Your task to perform on an android device: Set the phone to "Do not disturb". Image 0: 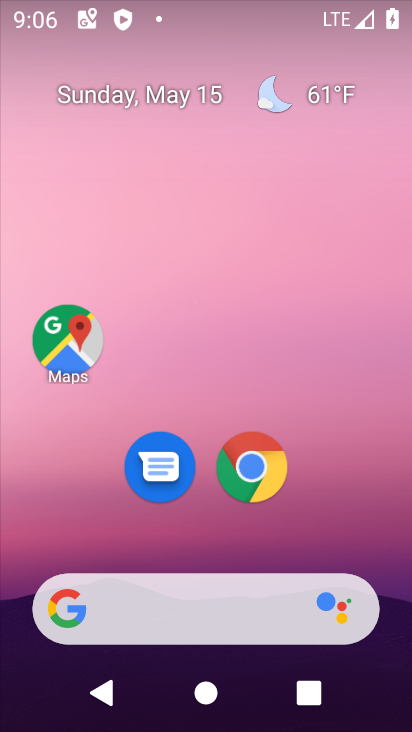
Step 0: drag from (194, 7) to (189, 538)
Your task to perform on an android device: Set the phone to "Do not disturb". Image 1: 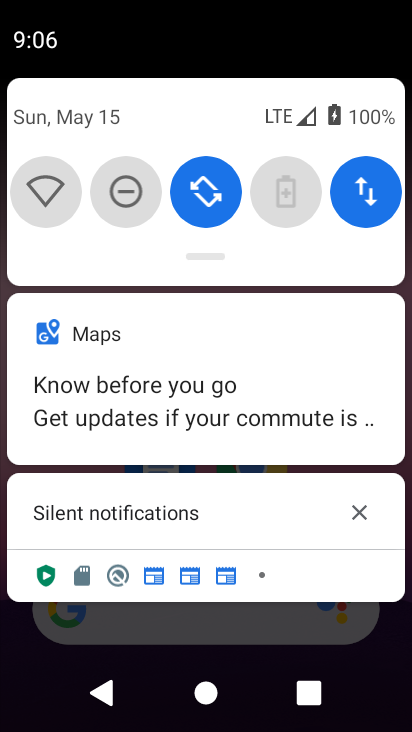
Step 1: click (136, 211)
Your task to perform on an android device: Set the phone to "Do not disturb". Image 2: 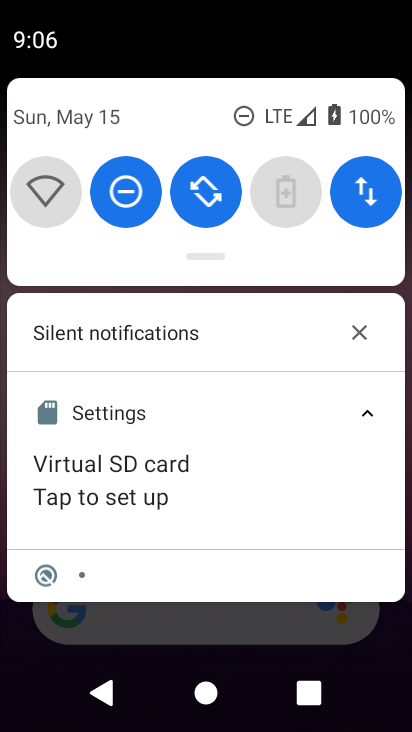
Step 2: task complete